Your task to perform on an android device: Open calendar and show me the fourth week of next month Image 0: 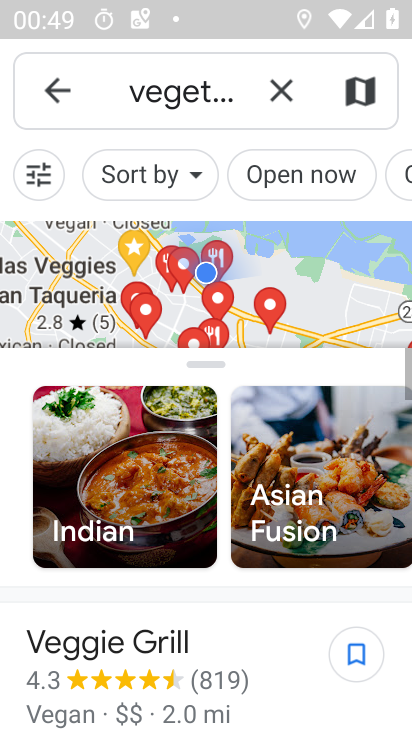
Step 0: press home button
Your task to perform on an android device: Open calendar and show me the fourth week of next month Image 1: 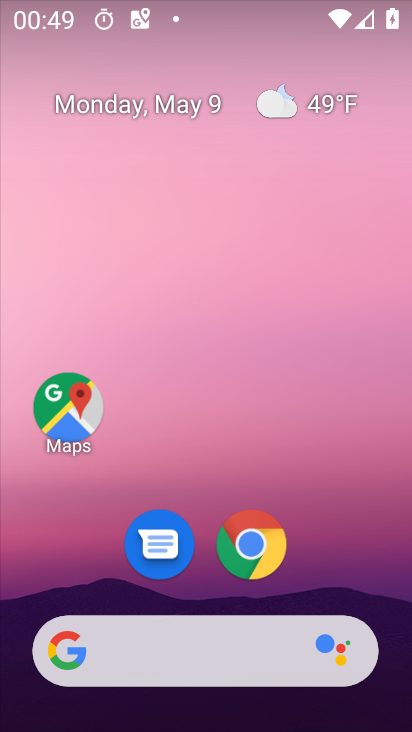
Step 1: drag from (208, 618) to (264, 1)
Your task to perform on an android device: Open calendar and show me the fourth week of next month Image 2: 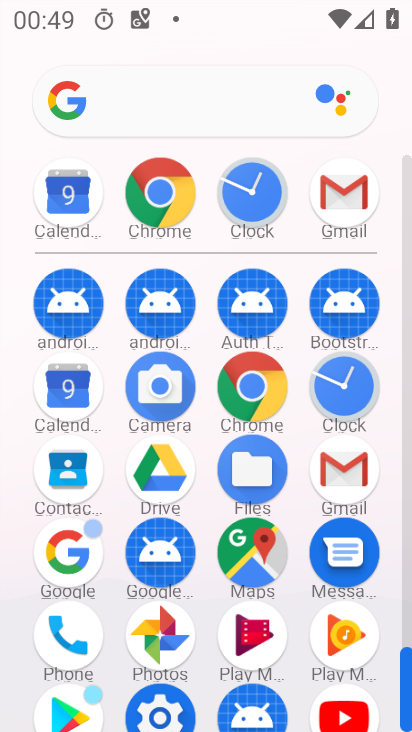
Step 2: click (81, 401)
Your task to perform on an android device: Open calendar and show me the fourth week of next month Image 3: 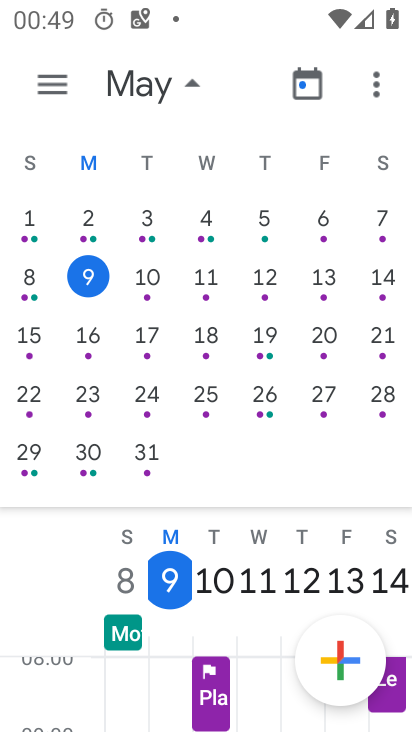
Step 3: click (280, 402)
Your task to perform on an android device: Open calendar and show me the fourth week of next month Image 4: 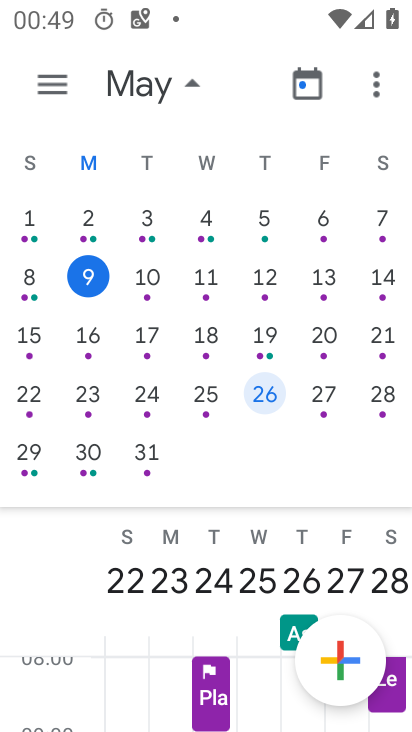
Step 4: drag from (387, 363) to (106, 358)
Your task to perform on an android device: Open calendar and show me the fourth week of next month Image 5: 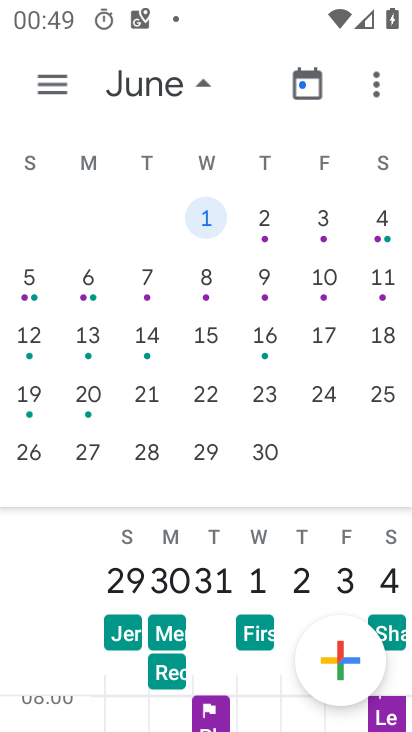
Step 5: click (268, 388)
Your task to perform on an android device: Open calendar and show me the fourth week of next month Image 6: 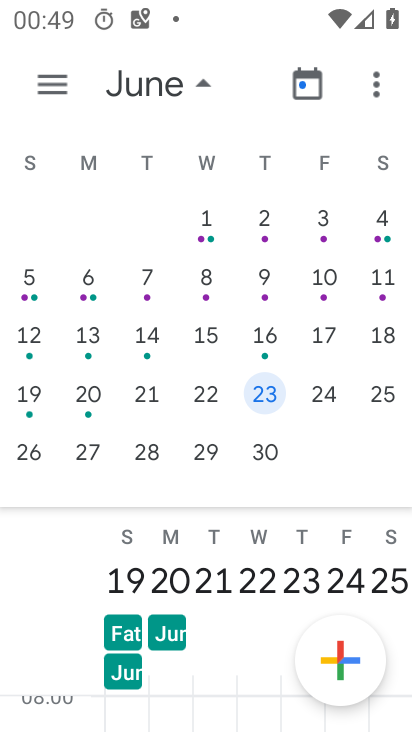
Step 6: task complete